Your task to perform on an android device: turn off priority inbox in the gmail app Image 0: 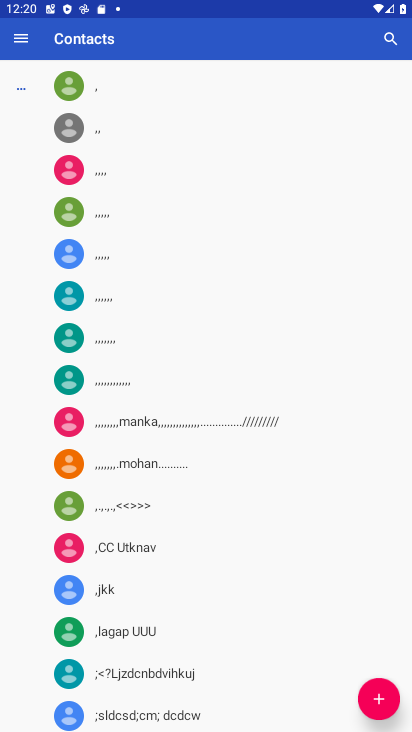
Step 0: press home button
Your task to perform on an android device: turn off priority inbox in the gmail app Image 1: 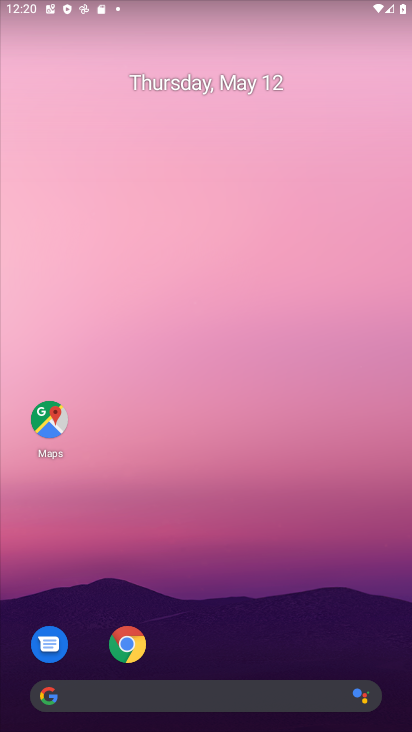
Step 1: drag from (264, 597) to (259, 187)
Your task to perform on an android device: turn off priority inbox in the gmail app Image 2: 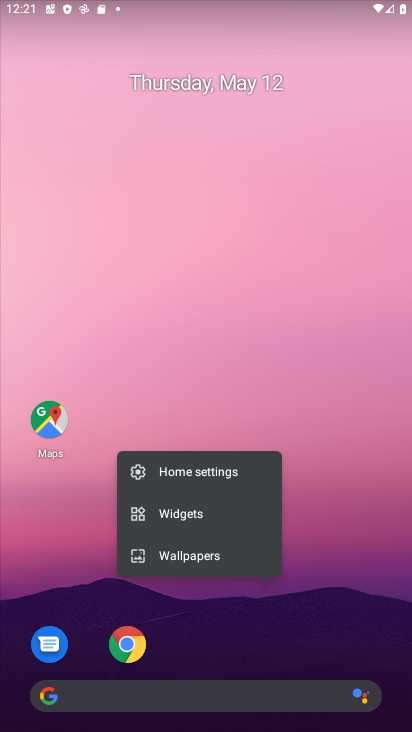
Step 2: click (312, 459)
Your task to perform on an android device: turn off priority inbox in the gmail app Image 3: 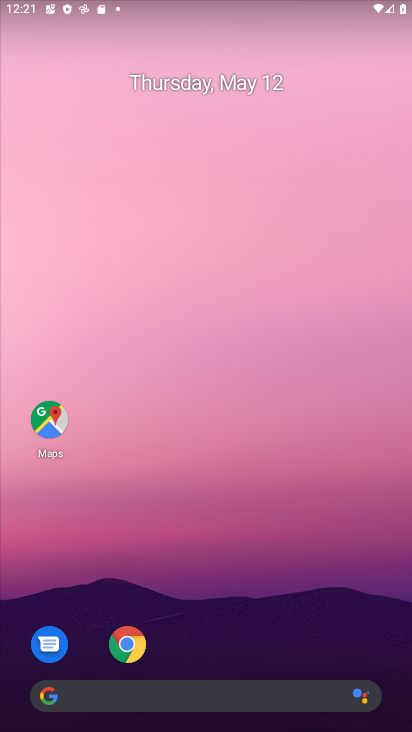
Step 3: drag from (297, 598) to (308, 203)
Your task to perform on an android device: turn off priority inbox in the gmail app Image 4: 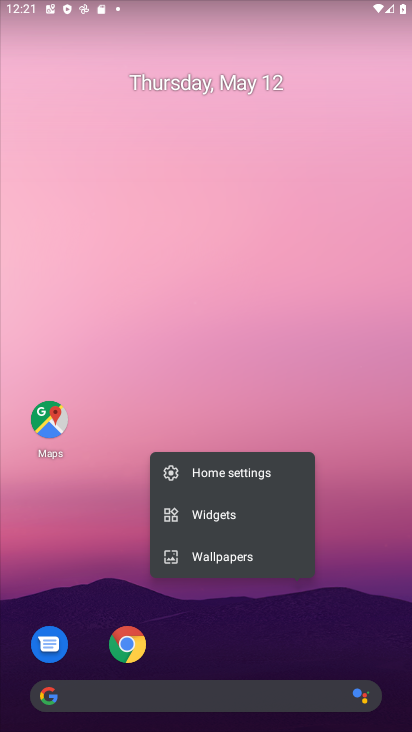
Step 4: click (377, 566)
Your task to perform on an android device: turn off priority inbox in the gmail app Image 5: 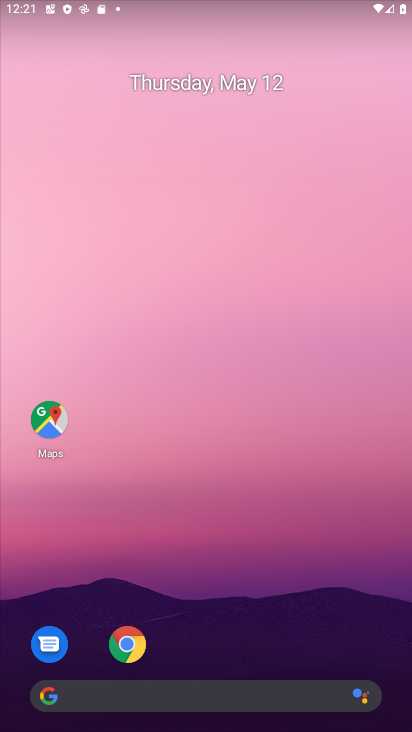
Step 5: drag from (304, 622) to (345, 73)
Your task to perform on an android device: turn off priority inbox in the gmail app Image 6: 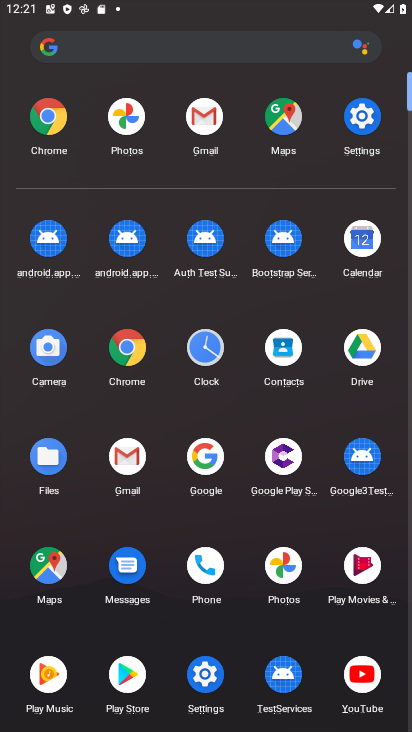
Step 6: click (212, 121)
Your task to perform on an android device: turn off priority inbox in the gmail app Image 7: 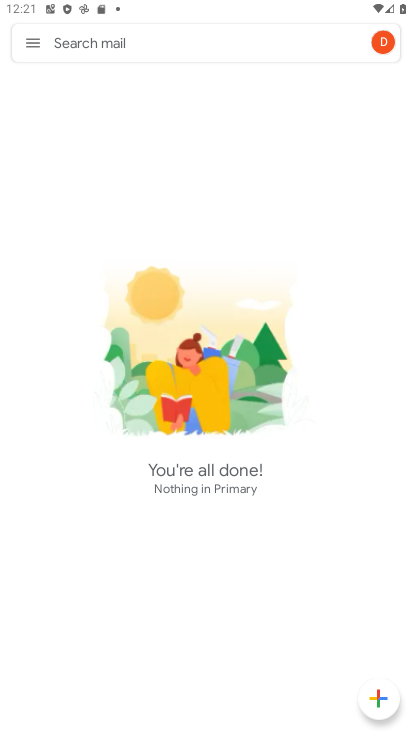
Step 7: click (34, 46)
Your task to perform on an android device: turn off priority inbox in the gmail app Image 8: 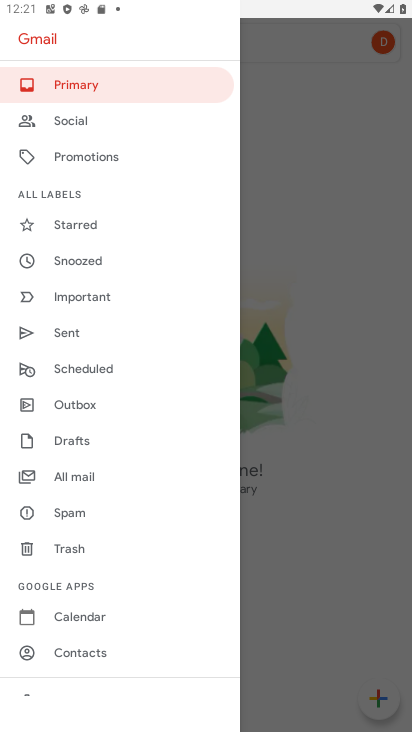
Step 8: drag from (74, 641) to (120, 384)
Your task to perform on an android device: turn off priority inbox in the gmail app Image 9: 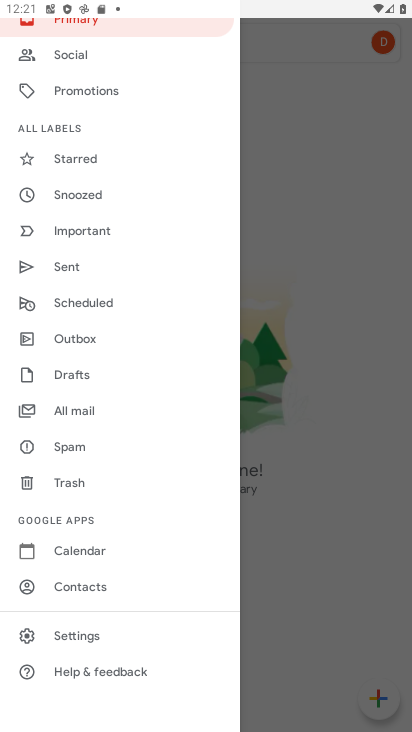
Step 9: click (83, 625)
Your task to perform on an android device: turn off priority inbox in the gmail app Image 10: 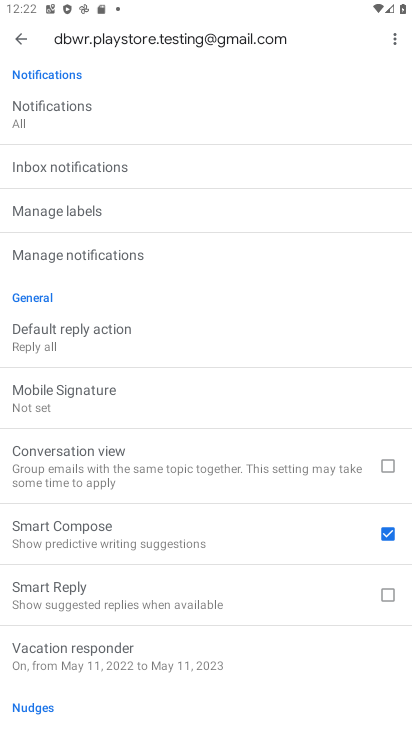
Step 10: drag from (131, 388) to (165, 217)
Your task to perform on an android device: turn off priority inbox in the gmail app Image 11: 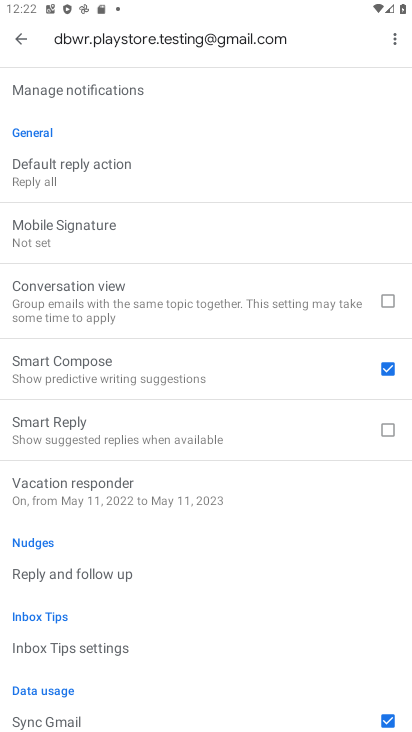
Step 11: drag from (185, 219) to (155, 649)
Your task to perform on an android device: turn off priority inbox in the gmail app Image 12: 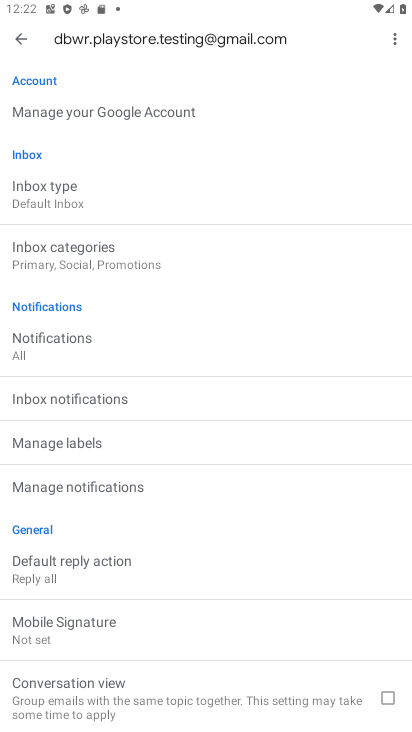
Step 12: drag from (162, 215) to (157, 373)
Your task to perform on an android device: turn off priority inbox in the gmail app Image 13: 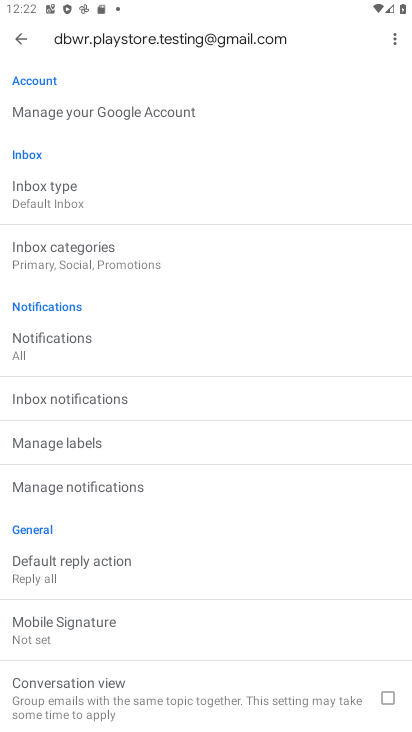
Step 13: click (157, 218)
Your task to perform on an android device: turn off priority inbox in the gmail app Image 14: 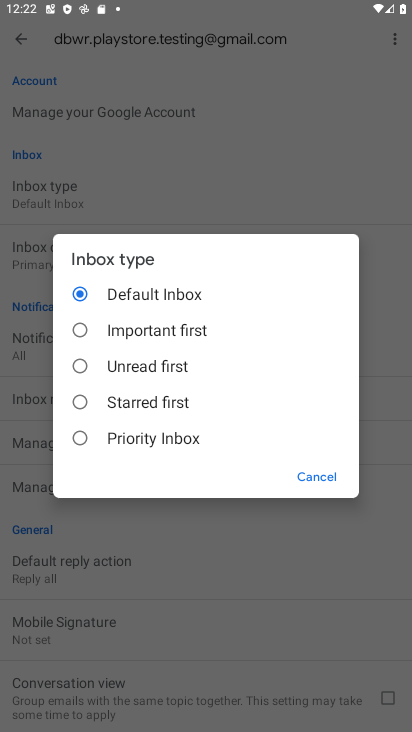
Step 14: click (138, 423)
Your task to perform on an android device: turn off priority inbox in the gmail app Image 15: 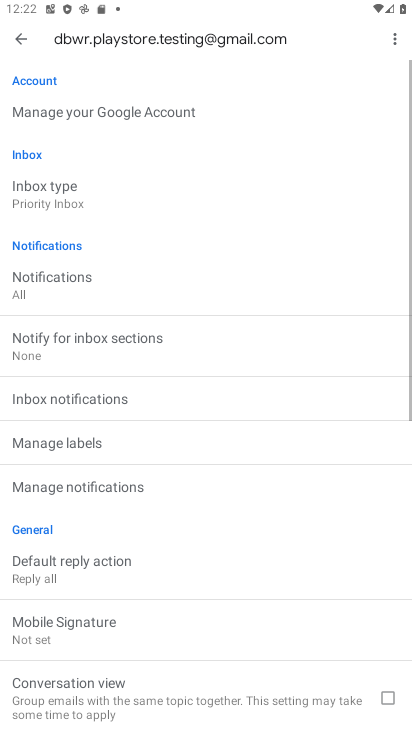
Step 15: task complete